Your task to perform on an android device: snooze an email in the gmail app Image 0: 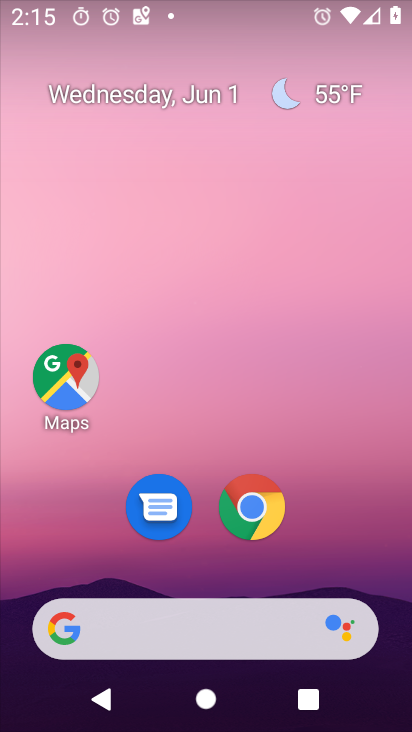
Step 0: drag from (373, 582) to (380, 9)
Your task to perform on an android device: snooze an email in the gmail app Image 1: 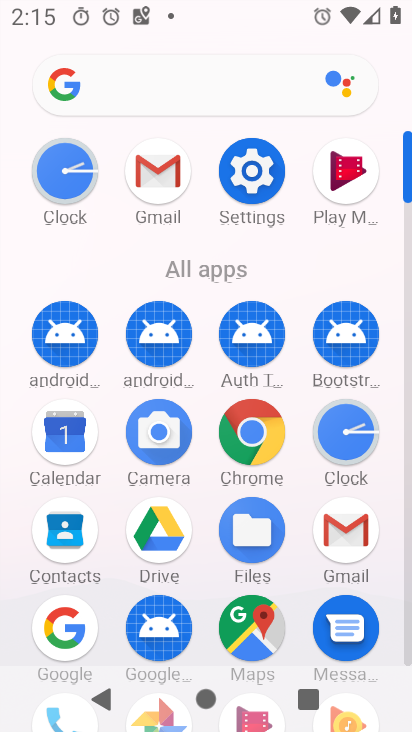
Step 1: click (144, 179)
Your task to perform on an android device: snooze an email in the gmail app Image 2: 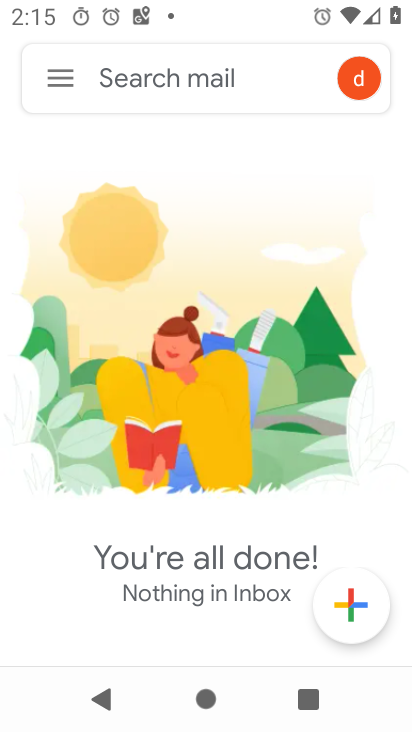
Step 2: click (49, 76)
Your task to perform on an android device: snooze an email in the gmail app Image 3: 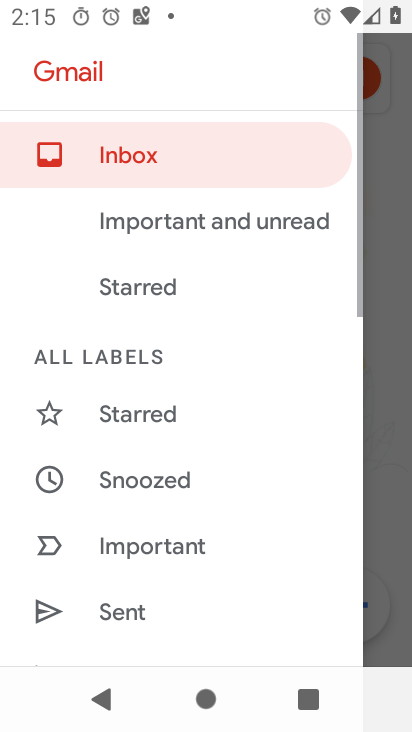
Step 3: drag from (250, 570) to (218, 237)
Your task to perform on an android device: snooze an email in the gmail app Image 4: 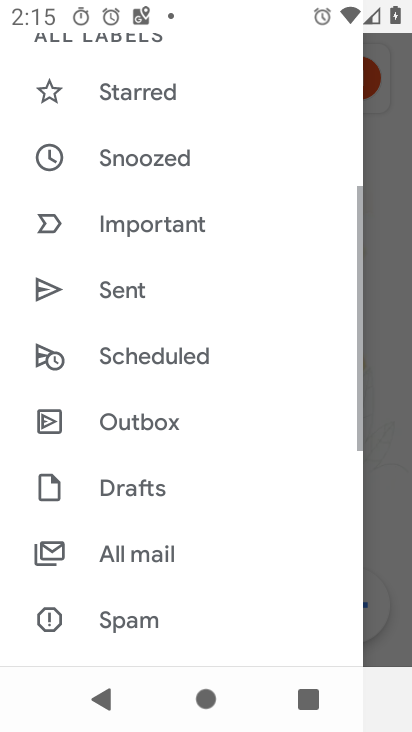
Step 4: click (136, 563)
Your task to perform on an android device: snooze an email in the gmail app Image 5: 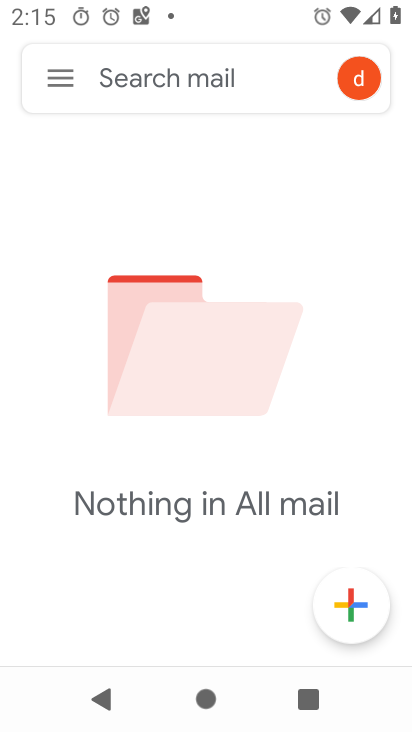
Step 5: task complete